Your task to perform on an android device: Open Android settings Image 0: 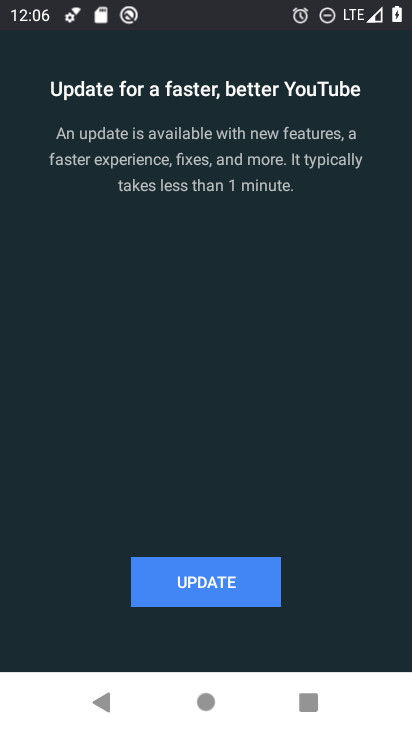
Step 0: press home button
Your task to perform on an android device: Open Android settings Image 1: 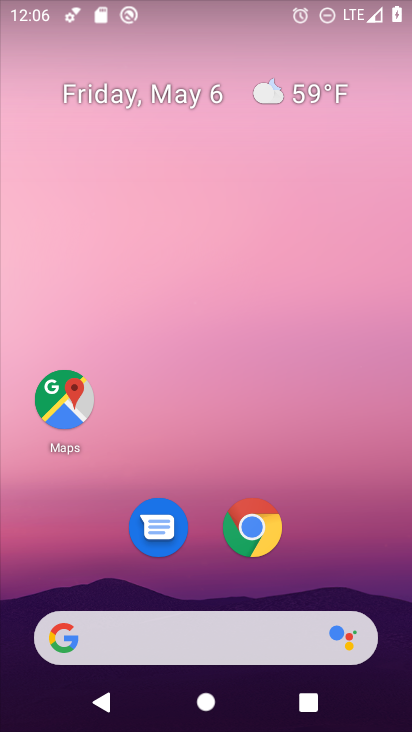
Step 1: drag from (253, 685) to (229, 0)
Your task to perform on an android device: Open Android settings Image 2: 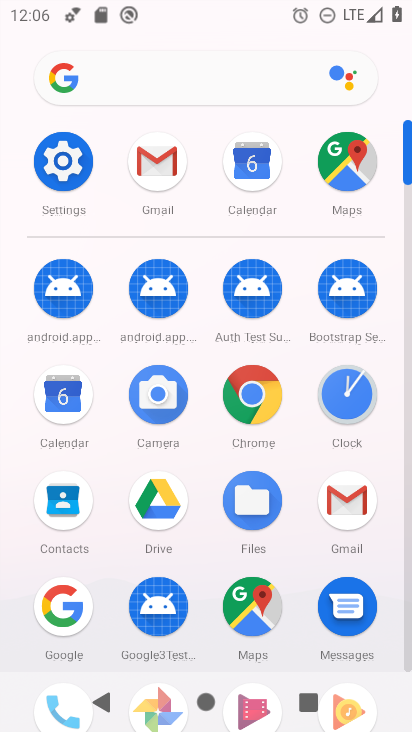
Step 2: click (70, 159)
Your task to perform on an android device: Open Android settings Image 3: 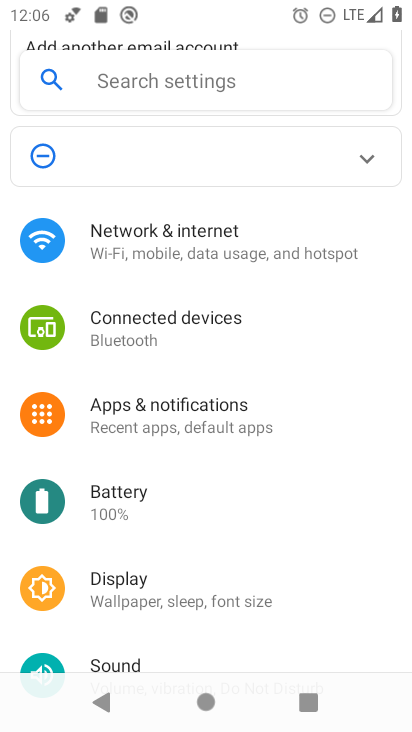
Step 3: task complete